Your task to perform on an android device: Check the weather Image 0: 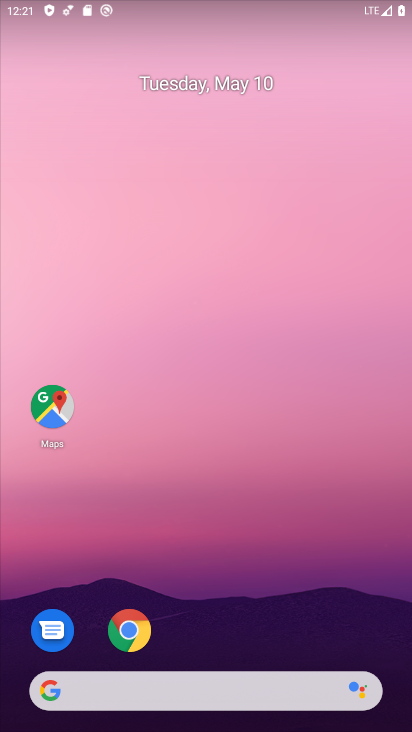
Step 0: drag from (213, 729) to (177, 21)
Your task to perform on an android device: Check the weather Image 1: 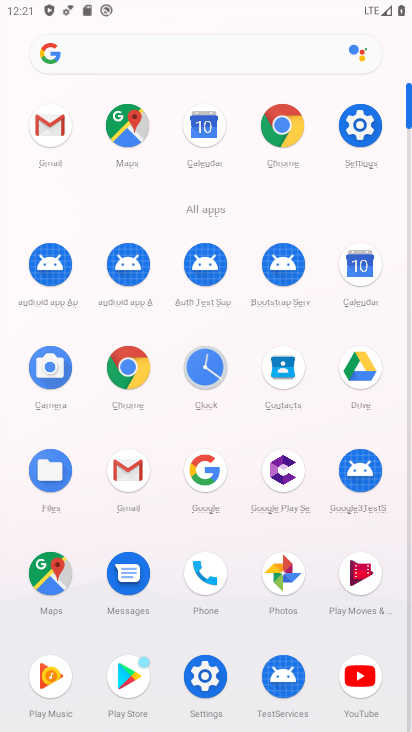
Step 1: click (211, 476)
Your task to perform on an android device: Check the weather Image 2: 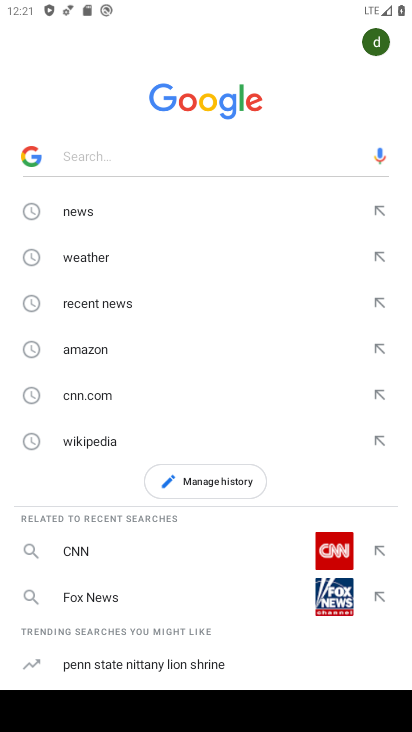
Step 2: click (107, 106)
Your task to perform on an android device: Check the weather Image 3: 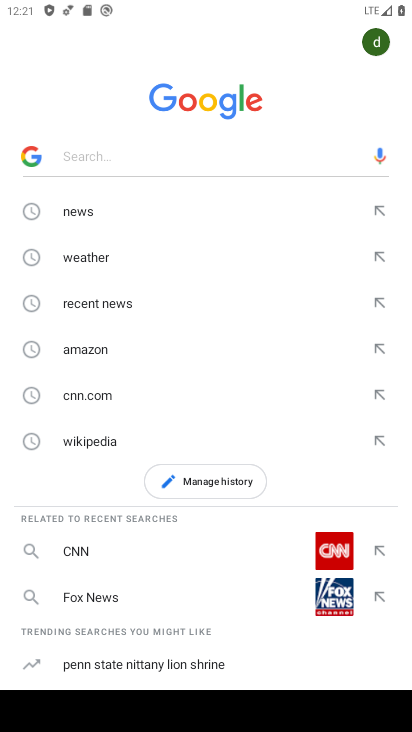
Step 3: click (90, 258)
Your task to perform on an android device: Check the weather Image 4: 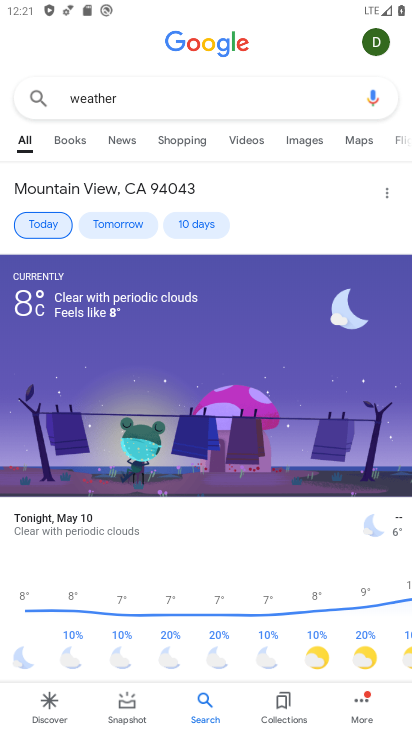
Step 4: task complete